Your task to perform on an android device: What is the recent news? Image 0: 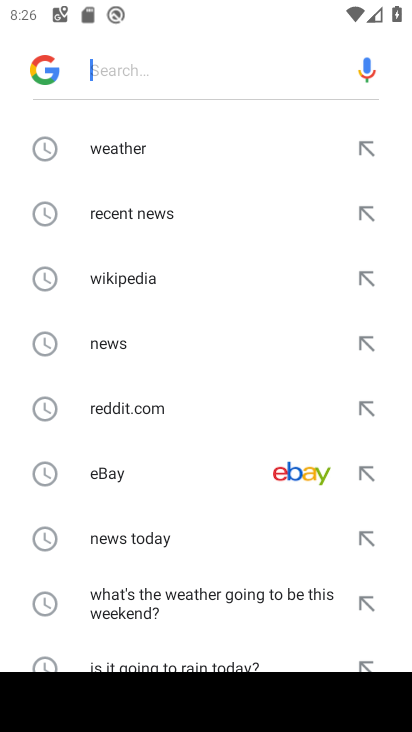
Step 0: press home button
Your task to perform on an android device: What is the recent news? Image 1: 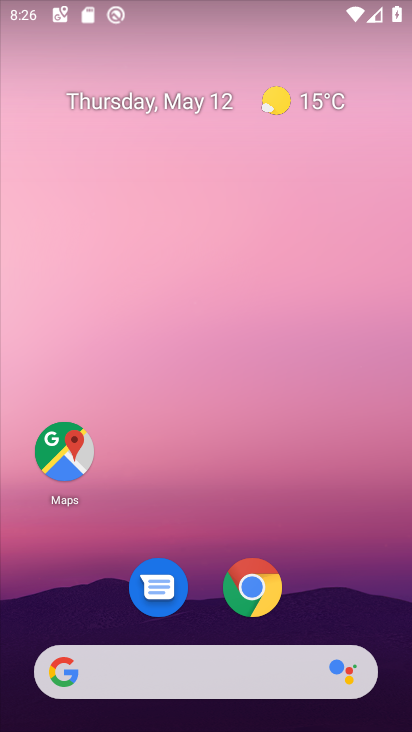
Step 1: click (258, 588)
Your task to perform on an android device: What is the recent news? Image 2: 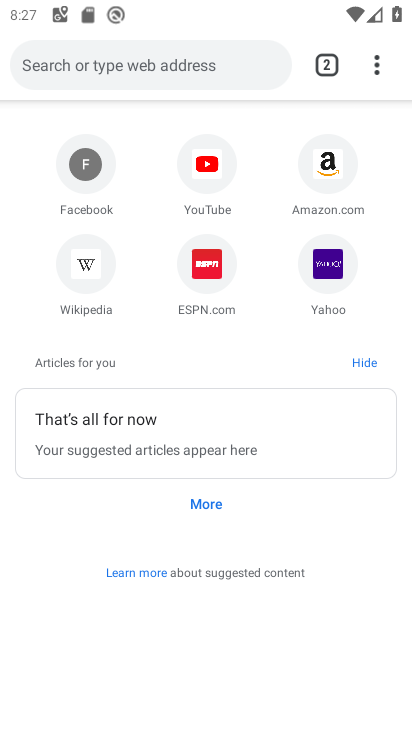
Step 2: click (206, 508)
Your task to perform on an android device: What is the recent news? Image 3: 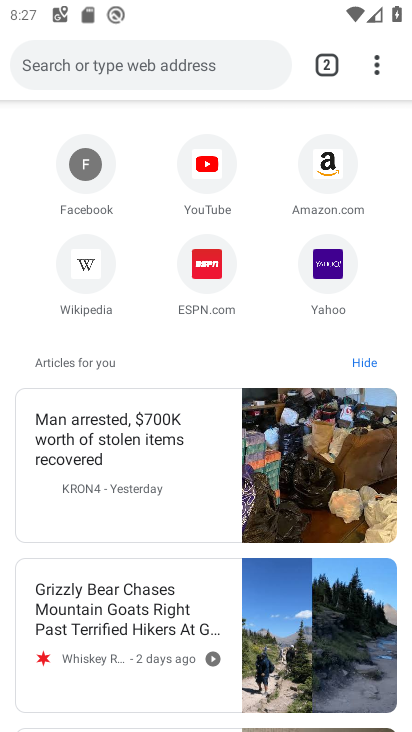
Step 3: drag from (156, 616) to (143, 230)
Your task to perform on an android device: What is the recent news? Image 4: 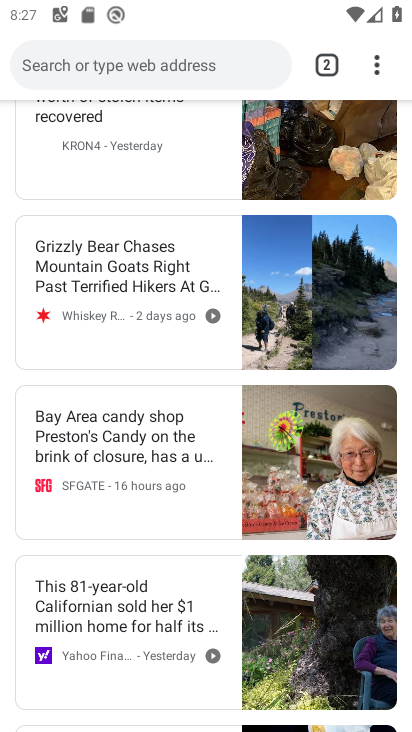
Step 4: click (151, 444)
Your task to perform on an android device: What is the recent news? Image 5: 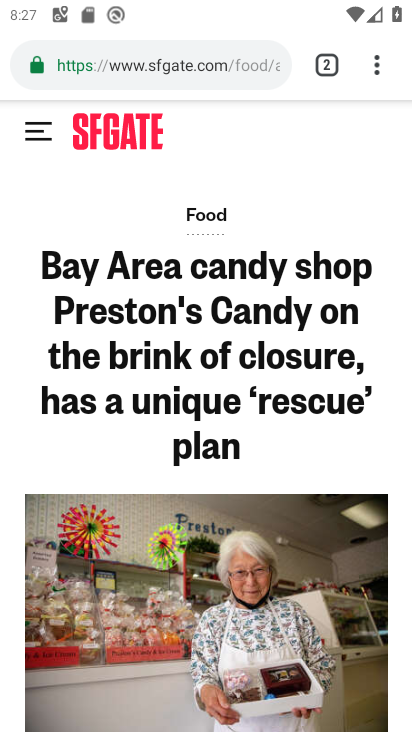
Step 5: task complete